Your task to perform on an android device: open wifi settings Image 0: 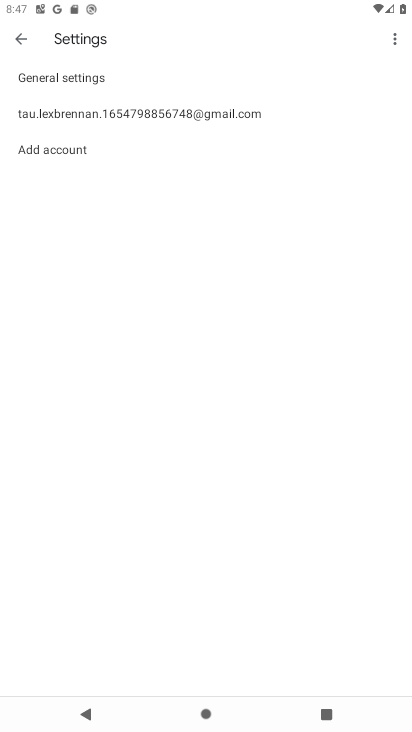
Step 0: drag from (248, 3) to (275, 474)
Your task to perform on an android device: open wifi settings Image 1: 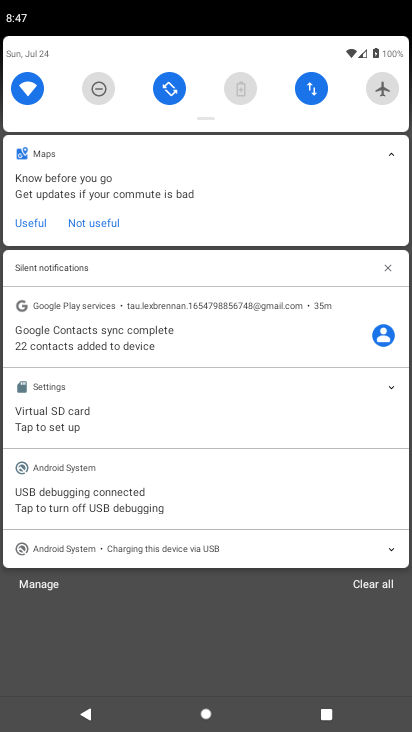
Step 1: click (33, 82)
Your task to perform on an android device: open wifi settings Image 2: 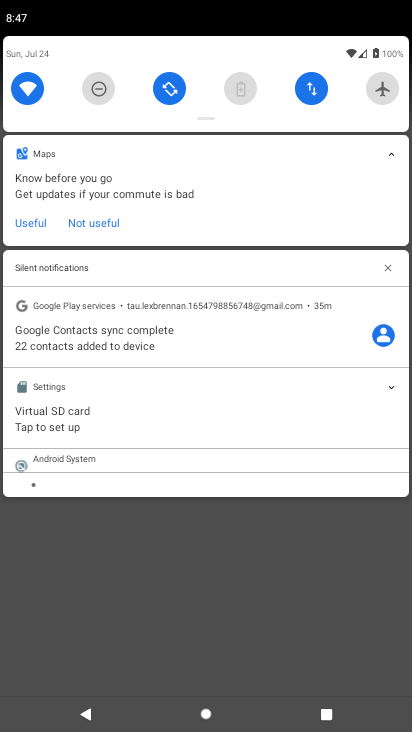
Step 2: click (33, 82)
Your task to perform on an android device: open wifi settings Image 3: 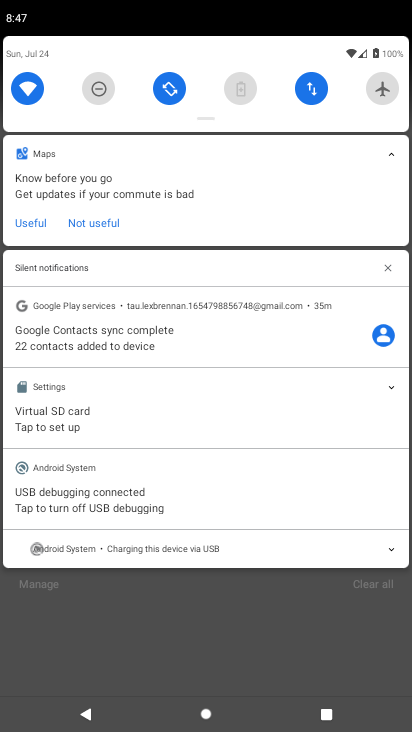
Step 3: click (33, 82)
Your task to perform on an android device: open wifi settings Image 4: 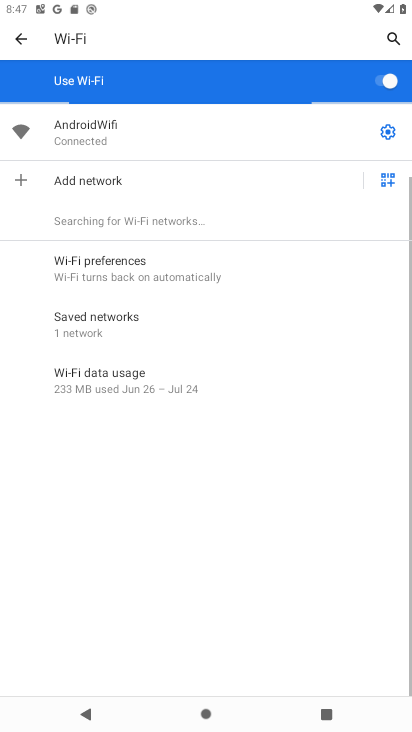
Step 4: task complete